Your task to perform on an android device: change alarm snooze length Image 0: 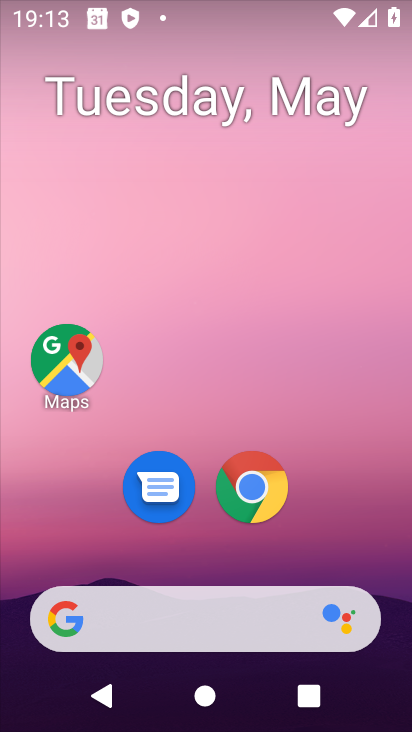
Step 0: drag from (284, 44) to (284, 0)
Your task to perform on an android device: change alarm snooze length Image 1: 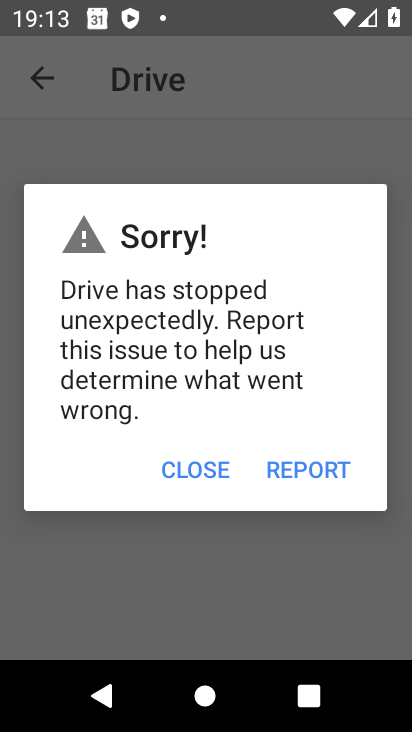
Step 1: press home button
Your task to perform on an android device: change alarm snooze length Image 2: 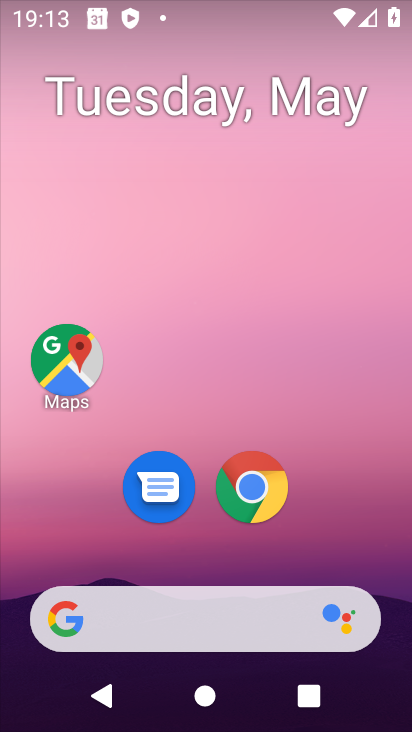
Step 2: drag from (329, 534) to (285, 17)
Your task to perform on an android device: change alarm snooze length Image 3: 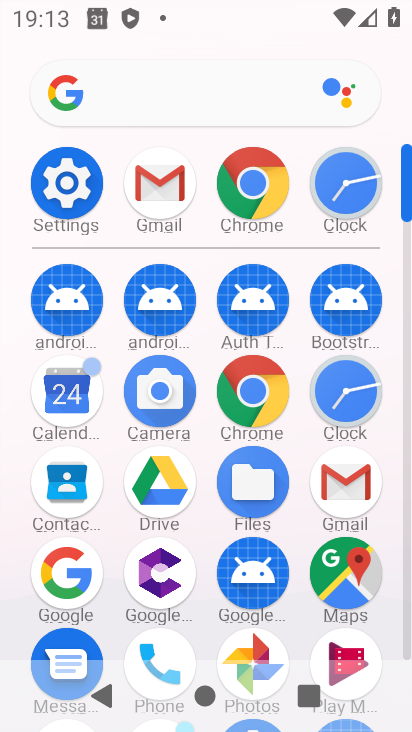
Step 3: click (343, 189)
Your task to perform on an android device: change alarm snooze length Image 4: 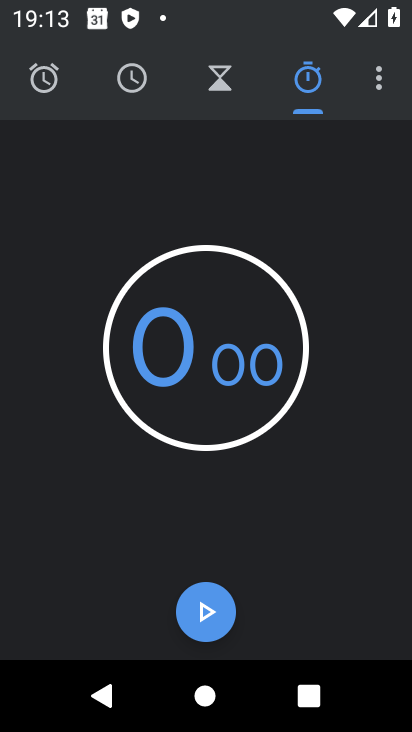
Step 4: click (383, 75)
Your task to perform on an android device: change alarm snooze length Image 5: 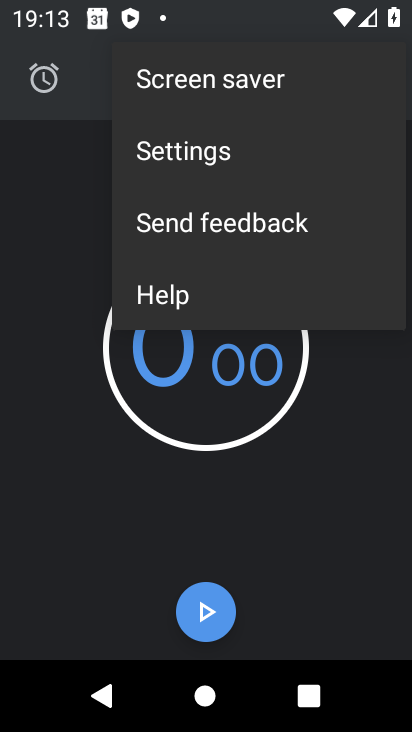
Step 5: click (191, 150)
Your task to perform on an android device: change alarm snooze length Image 6: 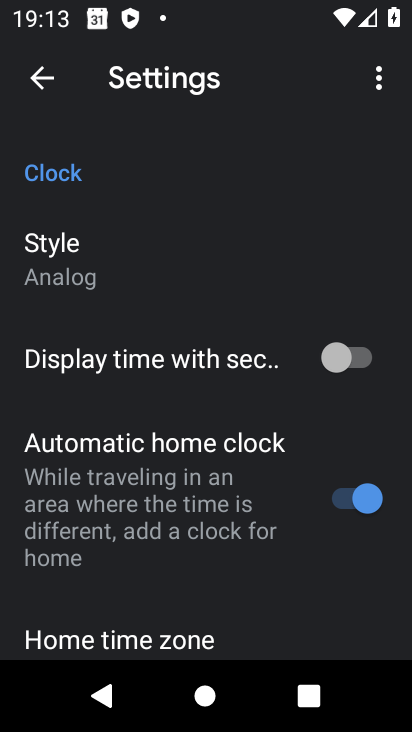
Step 6: drag from (279, 580) to (243, 247)
Your task to perform on an android device: change alarm snooze length Image 7: 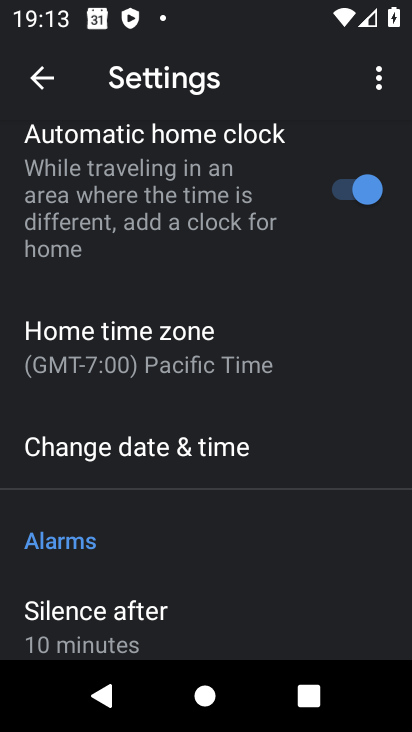
Step 7: drag from (239, 568) to (227, 253)
Your task to perform on an android device: change alarm snooze length Image 8: 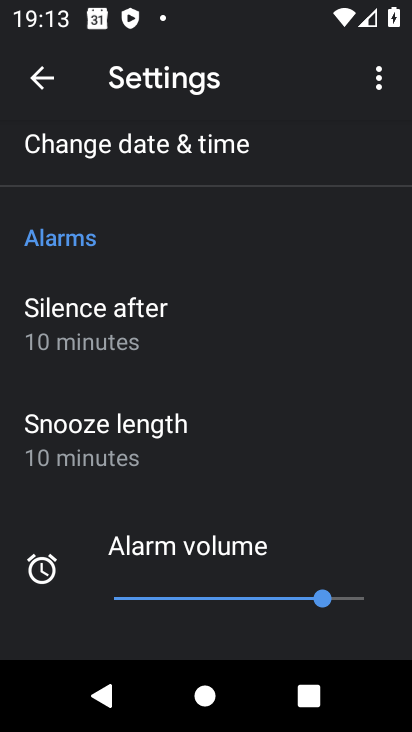
Step 8: click (128, 426)
Your task to perform on an android device: change alarm snooze length Image 9: 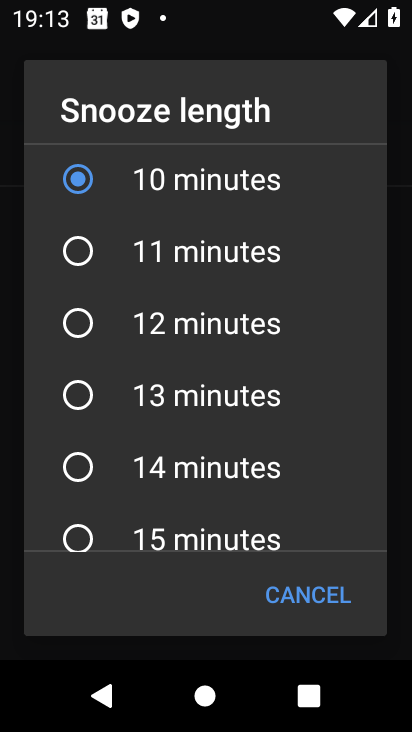
Step 9: click (87, 323)
Your task to perform on an android device: change alarm snooze length Image 10: 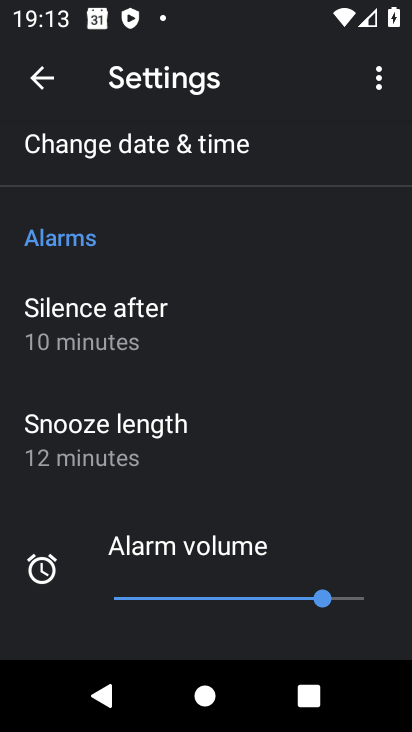
Step 10: task complete